Your task to perform on an android device: Open the calendar and show me this week's events Image 0: 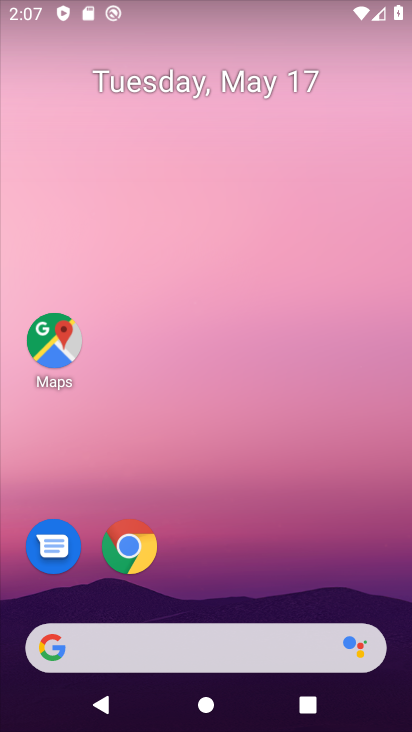
Step 0: drag from (314, 595) to (266, 248)
Your task to perform on an android device: Open the calendar and show me this week's events Image 1: 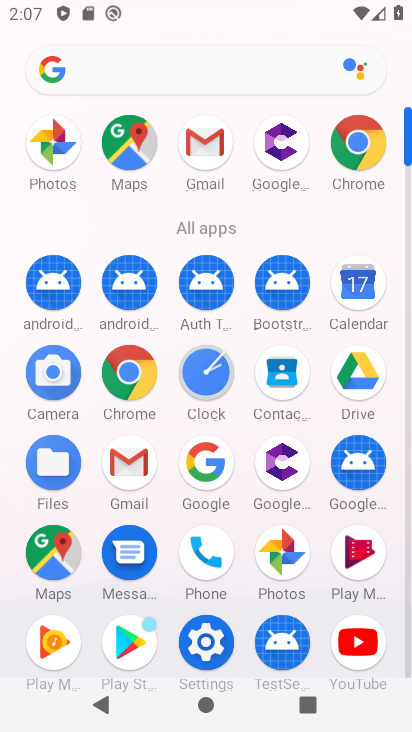
Step 1: click (382, 281)
Your task to perform on an android device: Open the calendar and show me this week's events Image 2: 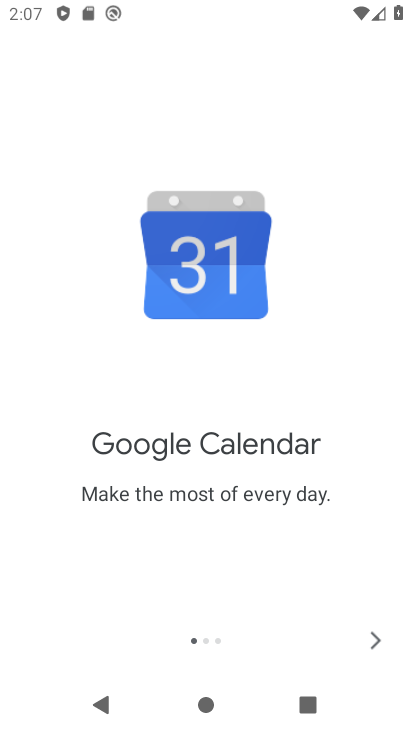
Step 2: click (370, 635)
Your task to perform on an android device: Open the calendar and show me this week's events Image 3: 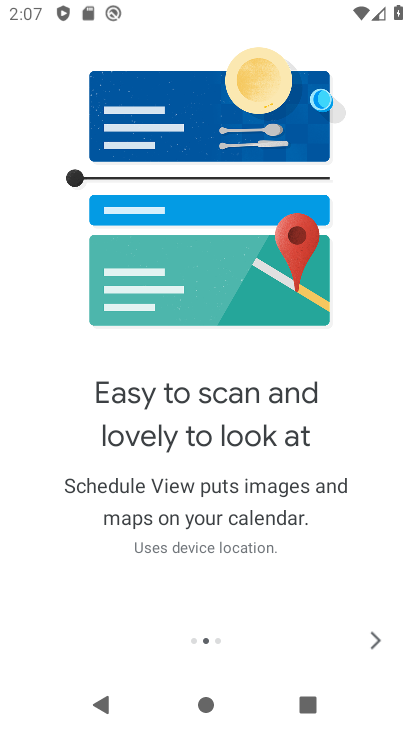
Step 3: click (370, 635)
Your task to perform on an android device: Open the calendar and show me this week's events Image 4: 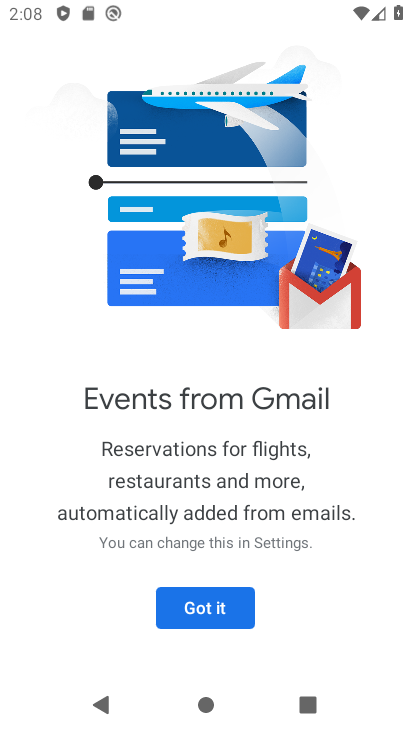
Step 4: click (235, 604)
Your task to perform on an android device: Open the calendar and show me this week's events Image 5: 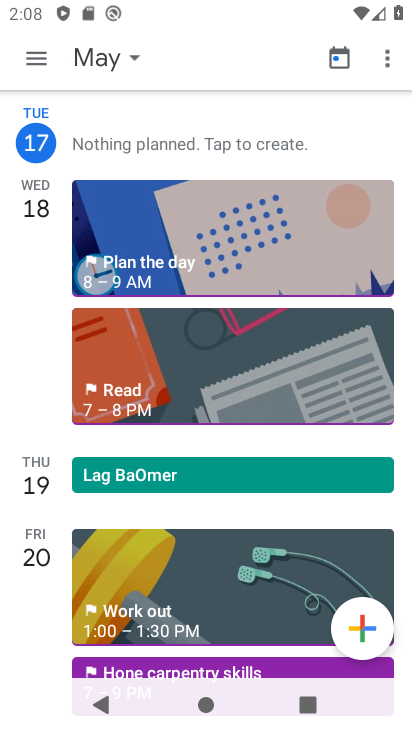
Step 5: task complete